Your task to perform on an android device: Go to Amazon Image 0: 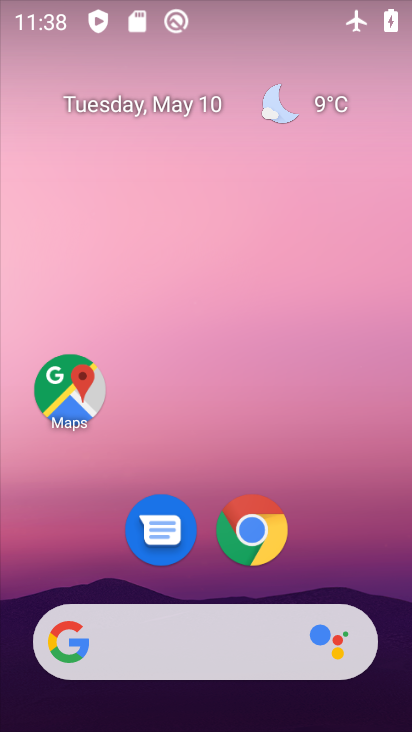
Step 0: drag from (326, 8) to (194, 725)
Your task to perform on an android device: Go to Amazon Image 1: 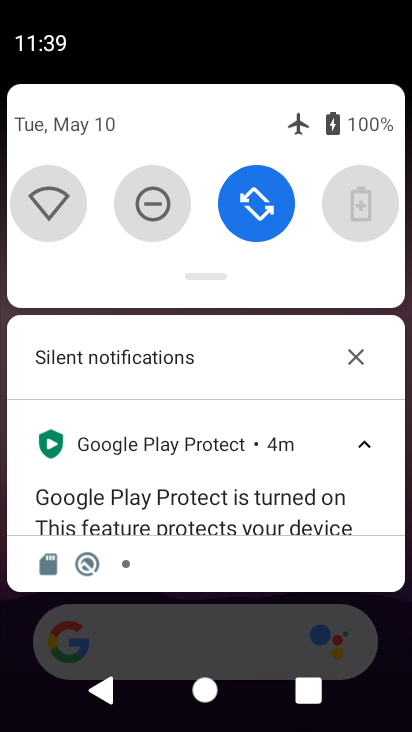
Step 1: drag from (225, 266) to (141, 724)
Your task to perform on an android device: Go to Amazon Image 2: 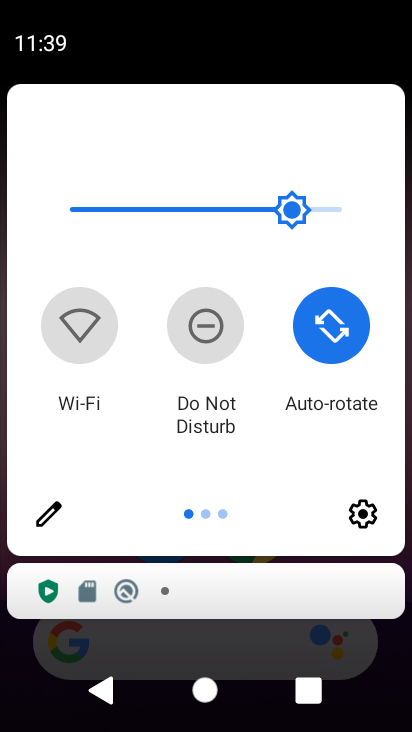
Step 2: drag from (381, 447) to (49, 435)
Your task to perform on an android device: Go to Amazon Image 3: 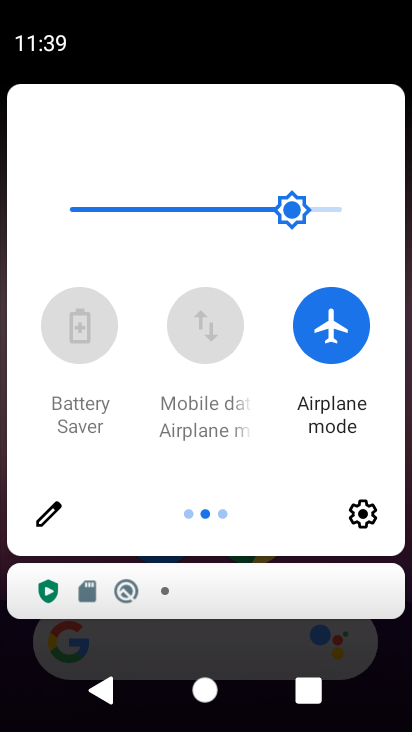
Step 3: click (349, 328)
Your task to perform on an android device: Go to Amazon Image 4: 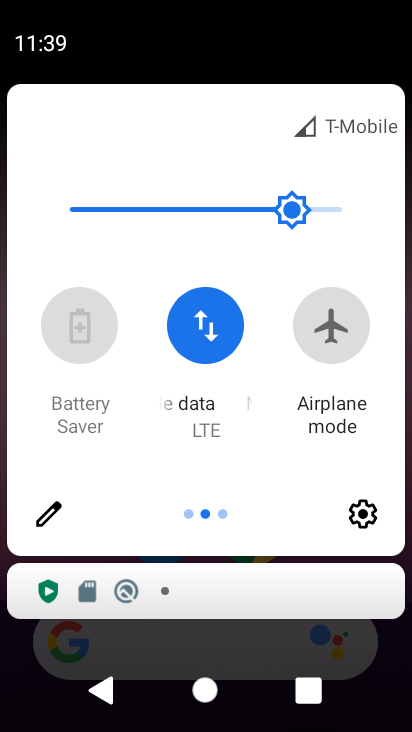
Step 4: drag from (351, 650) to (266, 251)
Your task to perform on an android device: Go to Amazon Image 5: 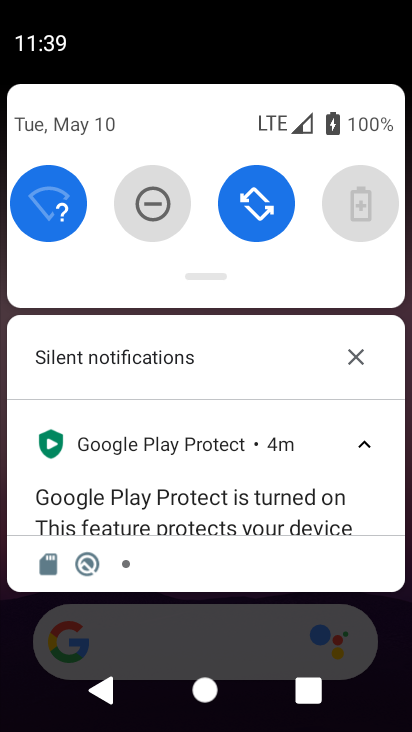
Step 5: drag from (400, 623) to (338, 274)
Your task to perform on an android device: Go to Amazon Image 6: 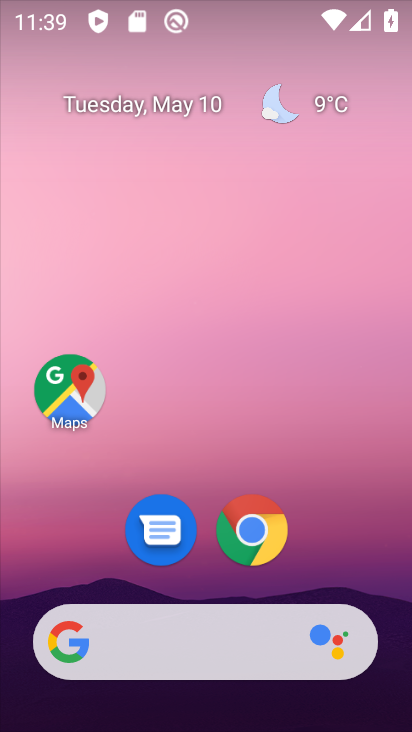
Step 6: click (263, 527)
Your task to perform on an android device: Go to Amazon Image 7: 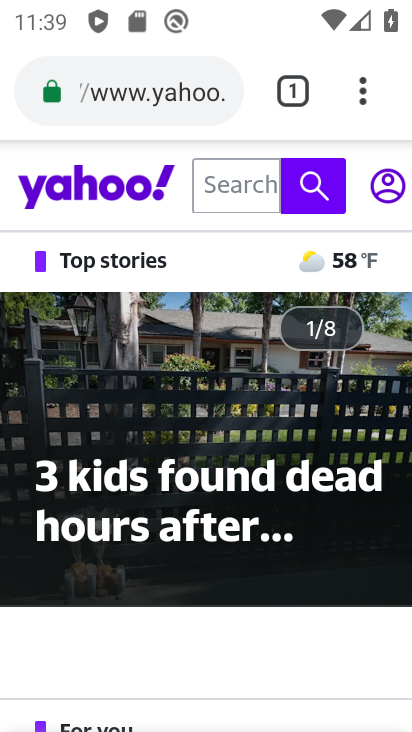
Step 7: click (176, 100)
Your task to perform on an android device: Go to Amazon Image 8: 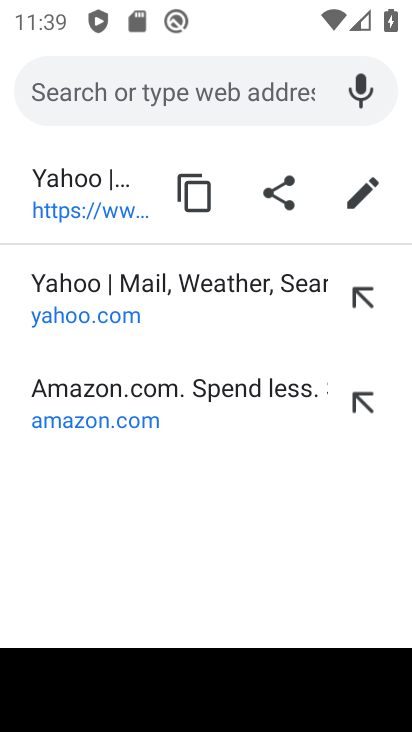
Step 8: type " Amazon"
Your task to perform on an android device: Go to Amazon Image 9: 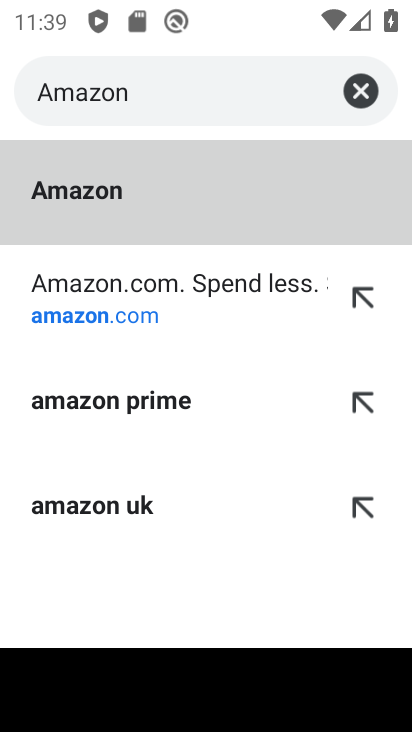
Step 9: click (225, 288)
Your task to perform on an android device: Go to Amazon Image 10: 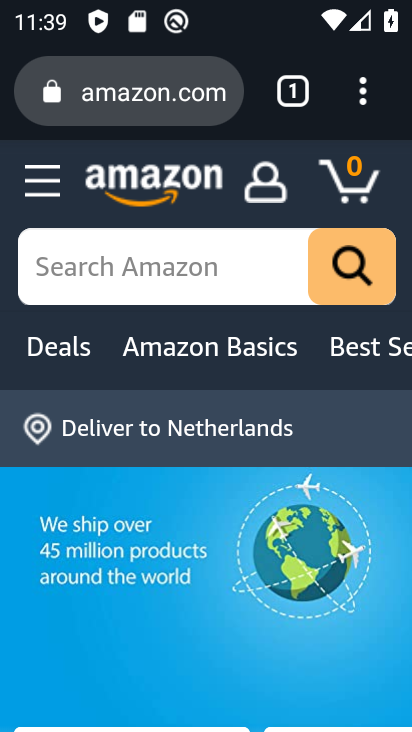
Step 10: task complete